Your task to perform on an android device: move a message to another label in the gmail app Image 0: 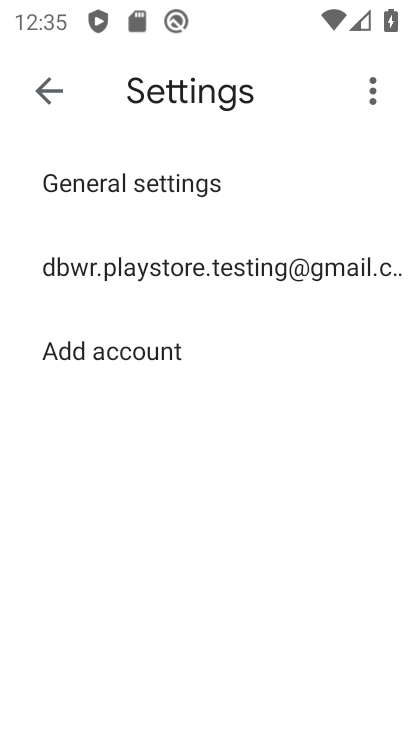
Step 0: press home button
Your task to perform on an android device: move a message to another label in the gmail app Image 1: 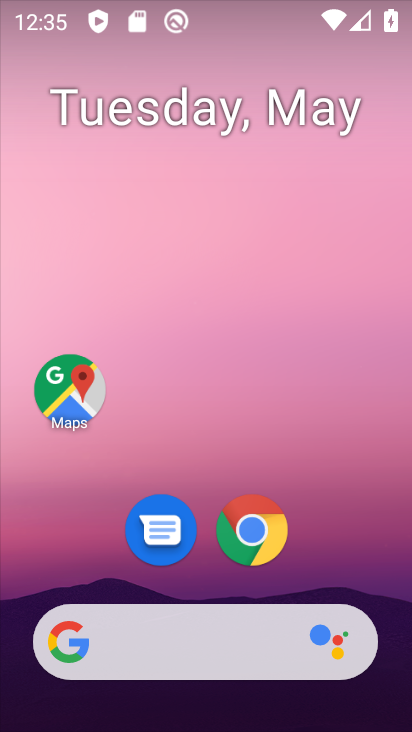
Step 1: drag from (144, 580) to (179, 213)
Your task to perform on an android device: move a message to another label in the gmail app Image 2: 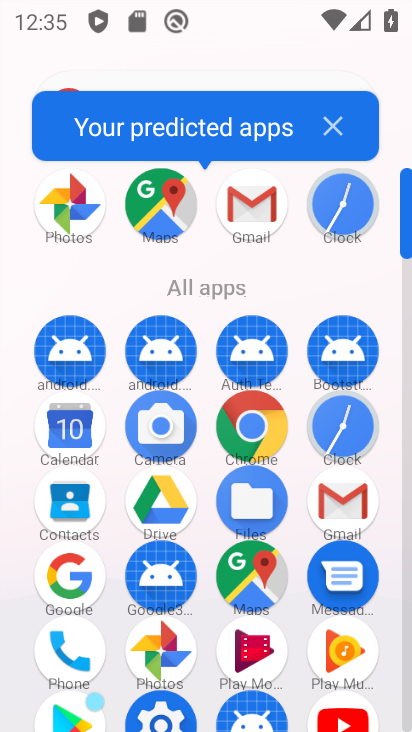
Step 2: click (343, 503)
Your task to perform on an android device: move a message to another label in the gmail app Image 3: 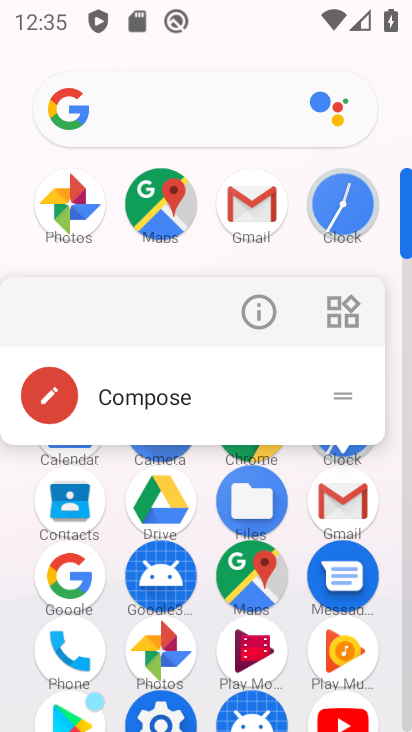
Step 3: click (256, 314)
Your task to perform on an android device: move a message to another label in the gmail app Image 4: 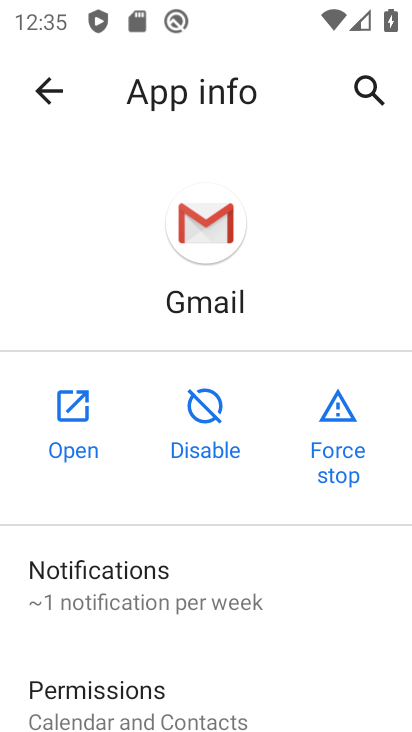
Step 4: click (111, 409)
Your task to perform on an android device: move a message to another label in the gmail app Image 5: 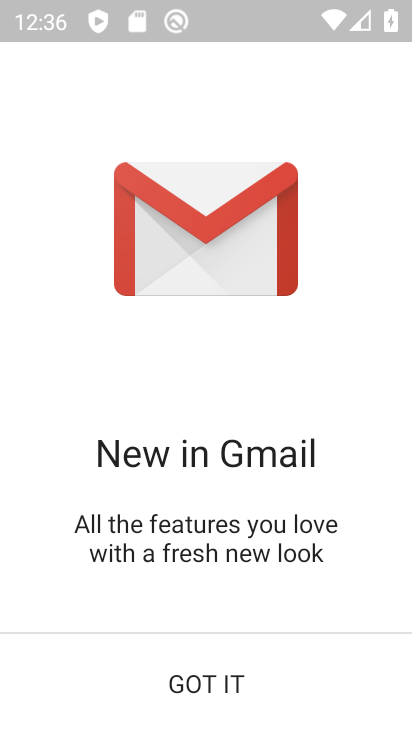
Step 5: click (200, 691)
Your task to perform on an android device: move a message to another label in the gmail app Image 6: 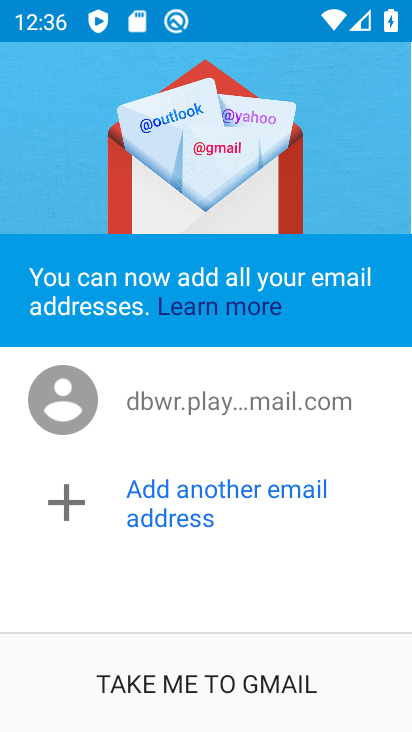
Step 6: click (176, 691)
Your task to perform on an android device: move a message to another label in the gmail app Image 7: 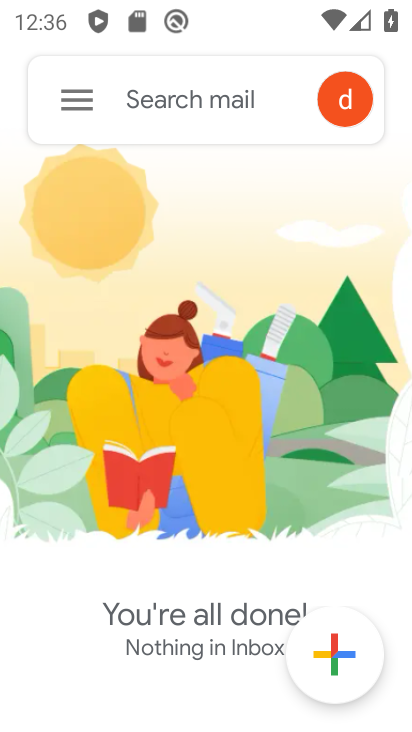
Step 7: click (77, 100)
Your task to perform on an android device: move a message to another label in the gmail app Image 8: 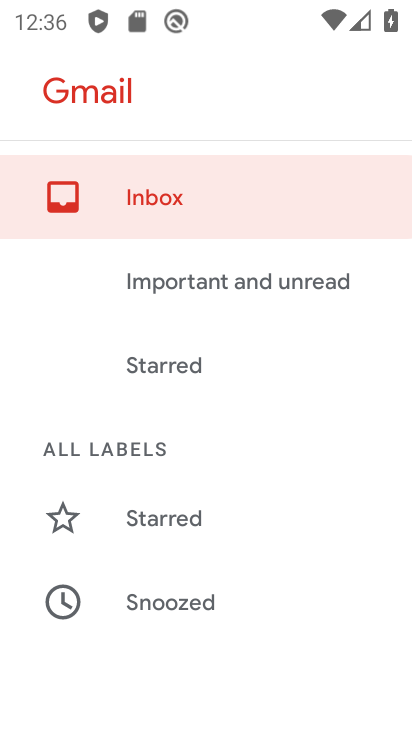
Step 8: drag from (227, 477) to (290, 111)
Your task to perform on an android device: move a message to another label in the gmail app Image 9: 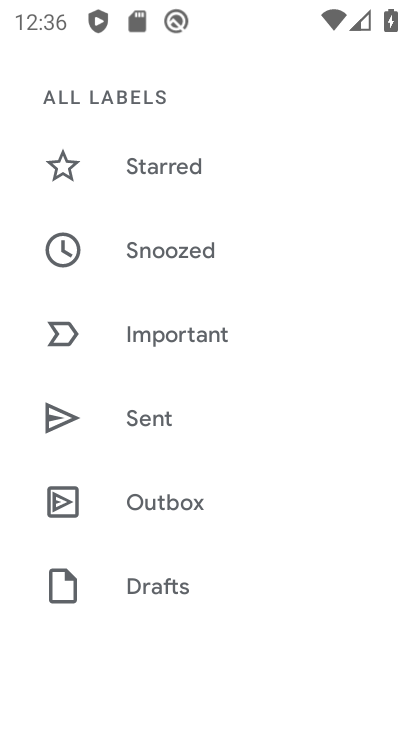
Step 9: drag from (197, 505) to (221, 250)
Your task to perform on an android device: move a message to another label in the gmail app Image 10: 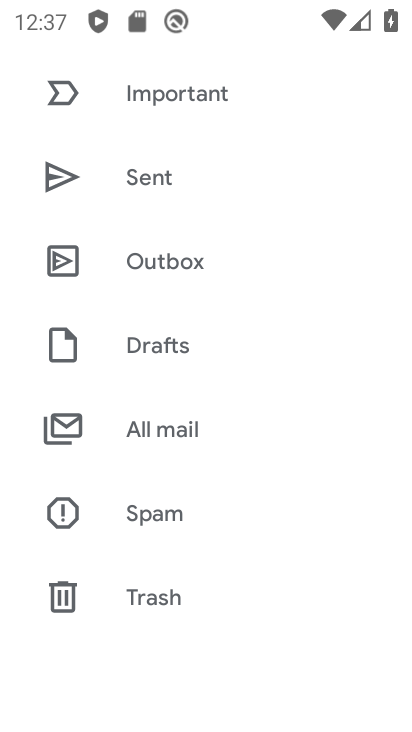
Step 10: click (168, 426)
Your task to perform on an android device: move a message to another label in the gmail app Image 11: 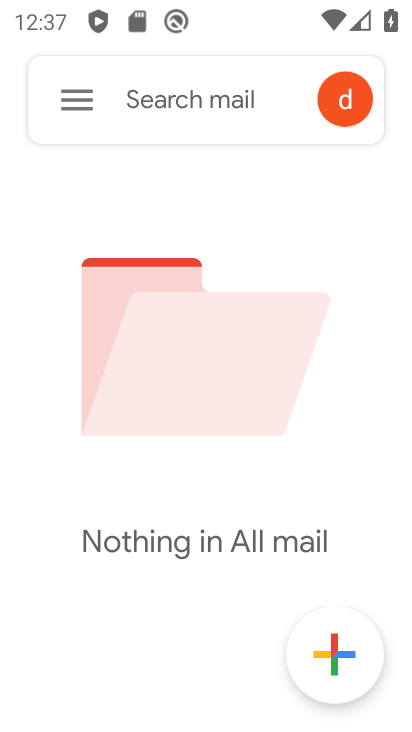
Step 11: task complete